Your task to perform on an android device: move an email to a new category in the gmail app Image 0: 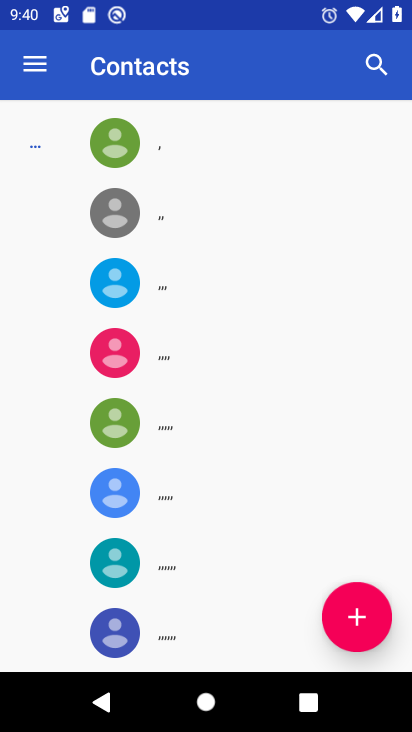
Step 0: press home button
Your task to perform on an android device: move an email to a new category in the gmail app Image 1: 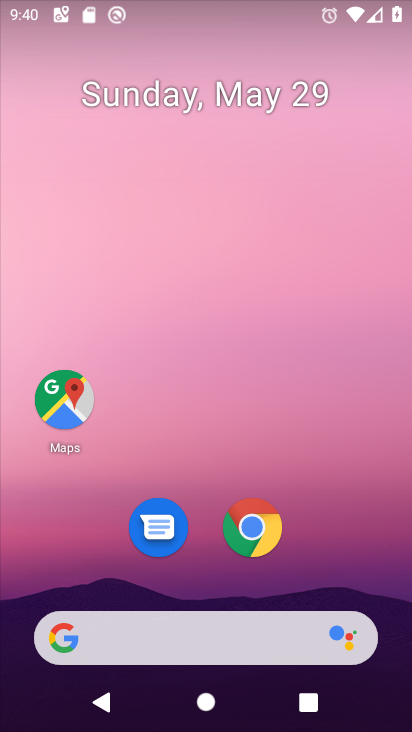
Step 1: drag from (209, 580) to (204, 5)
Your task to perform on an android device: move an email to a new category in the gmail app Image 2: 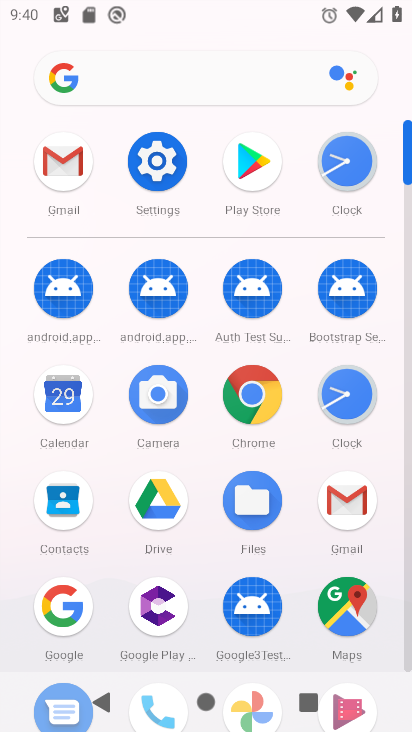
Step 2: click (348, 488)
Your task to perform on an android device: move an email to a new category in the gmail app Image 3: 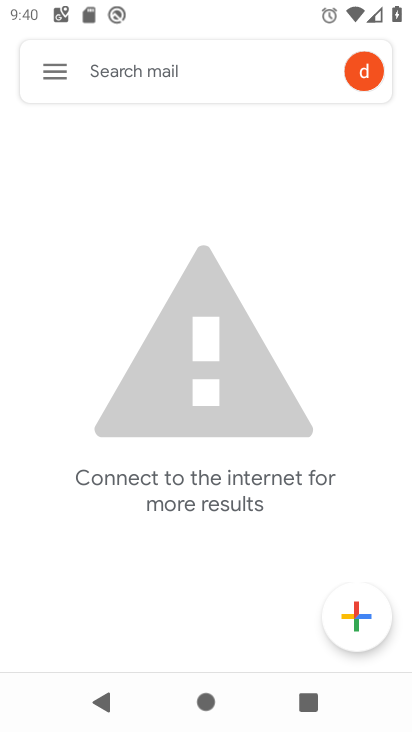
Step 3: task complete